Your task to perform on an android device: Search for razer blade on target, select the first entry, and add it to the cart. Image 0: 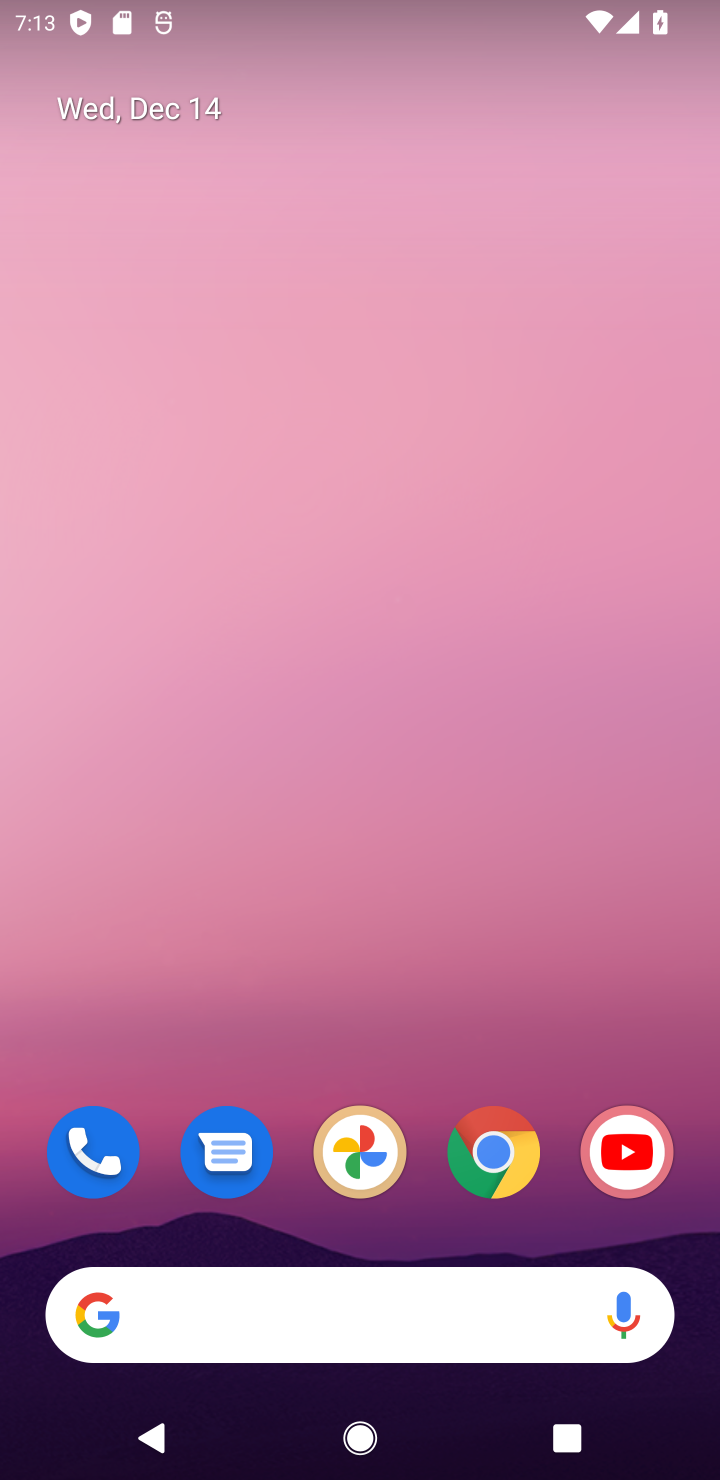
Step 0: click (504, 1158)
Your task to perform on an android device: Search for razer blade on target, select the first entry, and add it to the cart. Image 1: 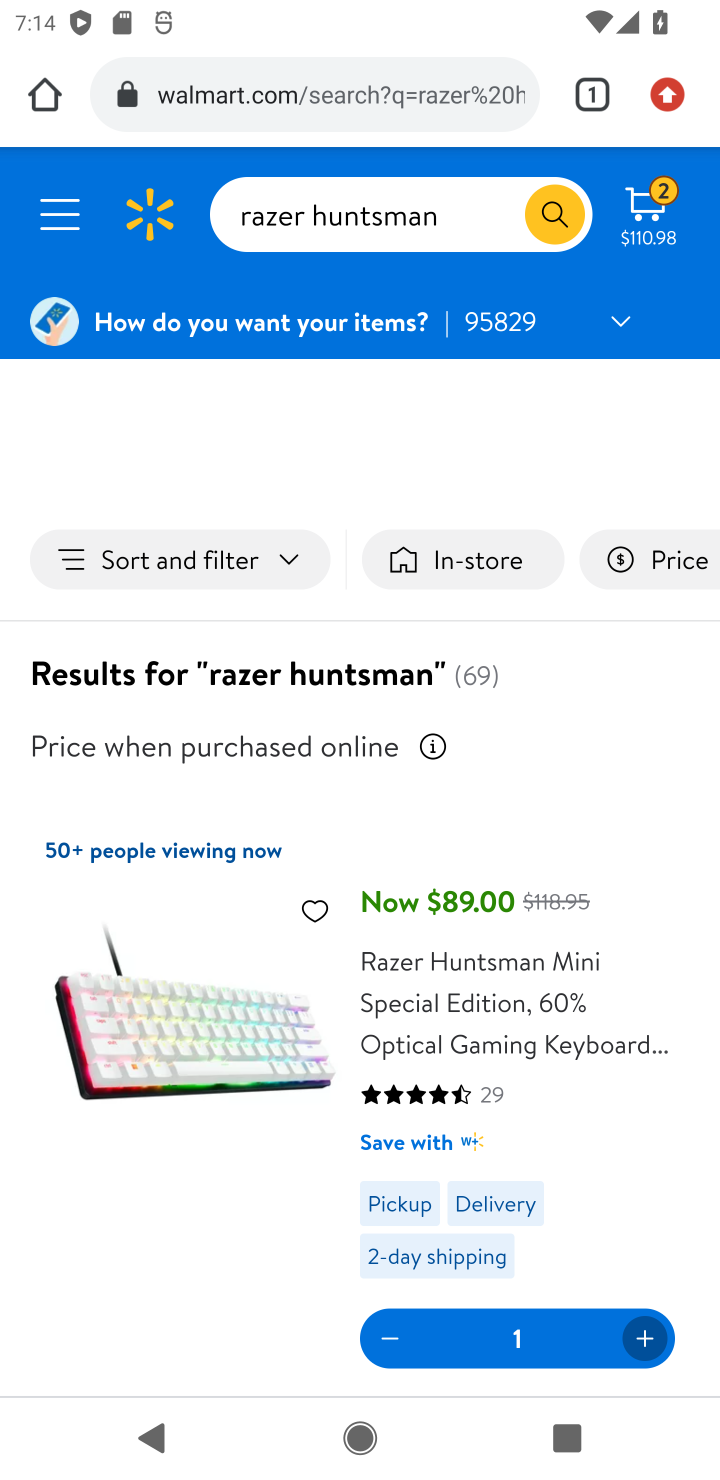
Step 1: click (269, 89)
Your task to perform on an android device: Search for razer blade on target, select the first entry, and add it to the cart. Image 2: 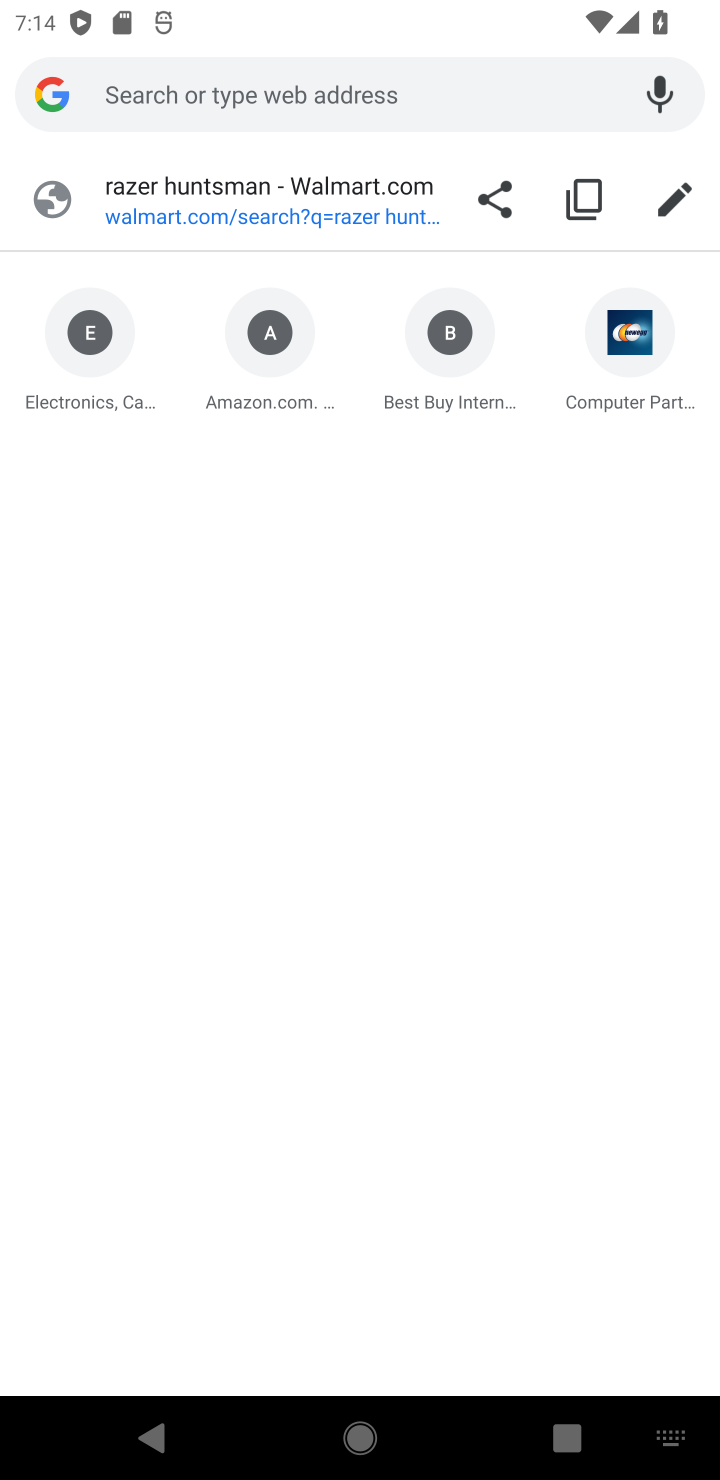
Step 2: type "target.com"
Your task to perform on an android device: Search for razer blade on target, select the first entry, and add it to the cart. Image 3: 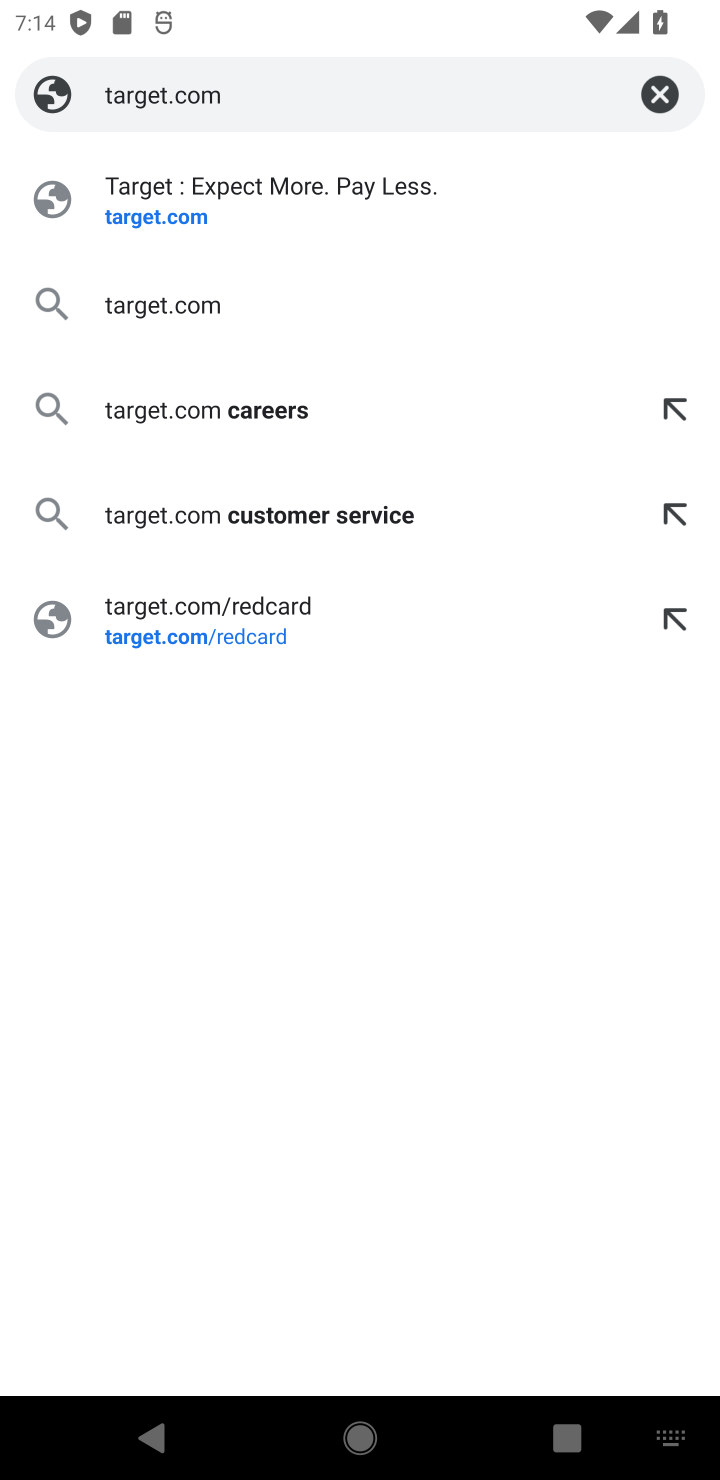
Step 3: click (158, 227)
Your task to perform on an android device: Search for razer blade on target, select the first entry, and add it to the cart. Image 4: 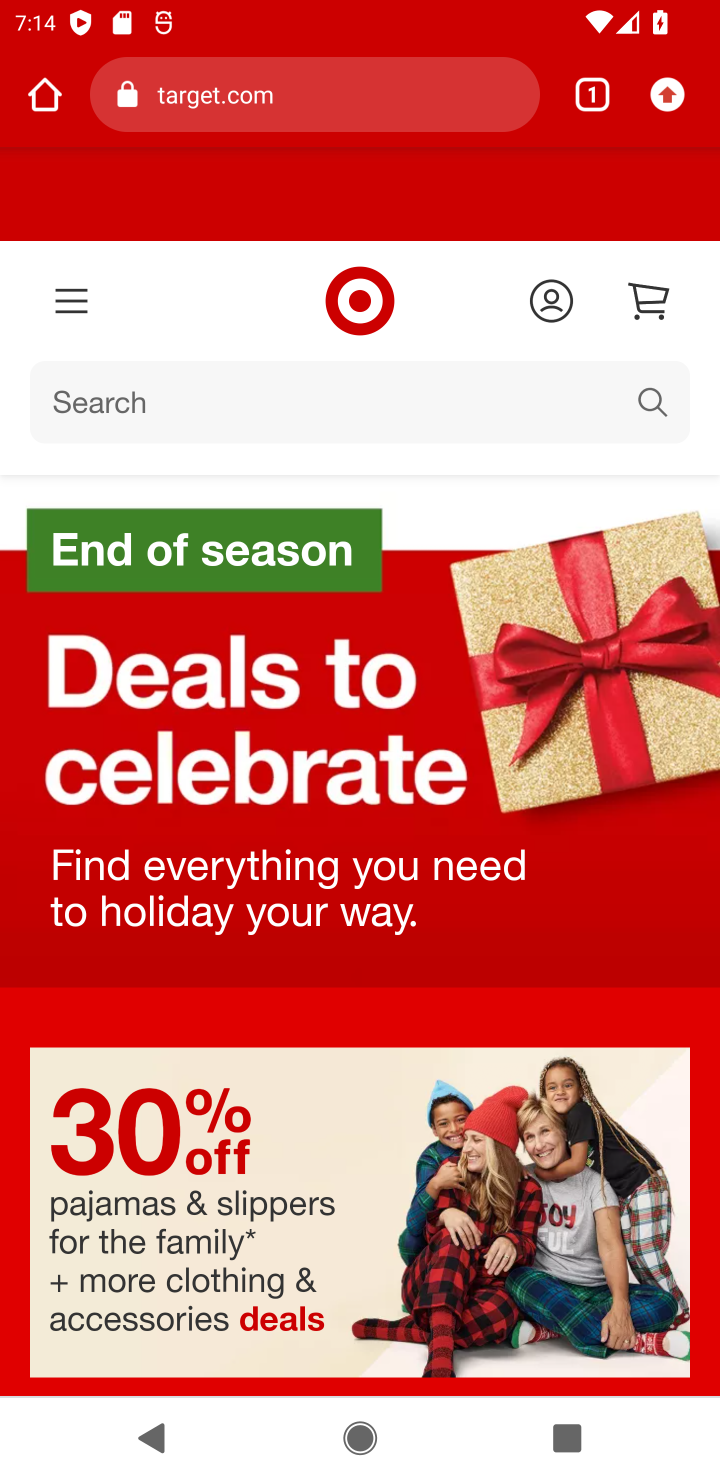
Step 4: click (79, 402)
Your task to perform on an android device: Search for razer blade on target, select the first entry, and add it to the cart. Image 5: 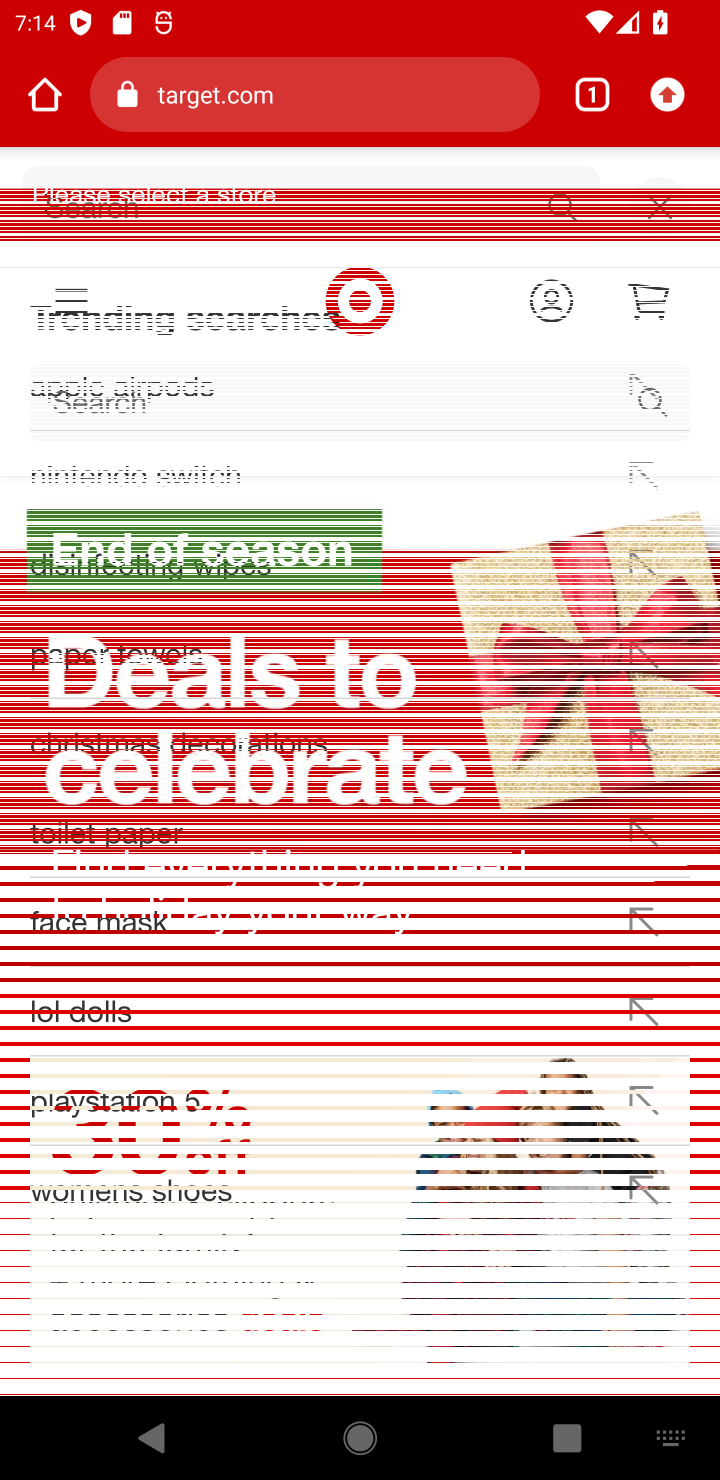
Step 5: type "razer blade"
Your task to perform on an android device: Search for razer blade on target, select the first entry, and add it to the cart. Image 6: 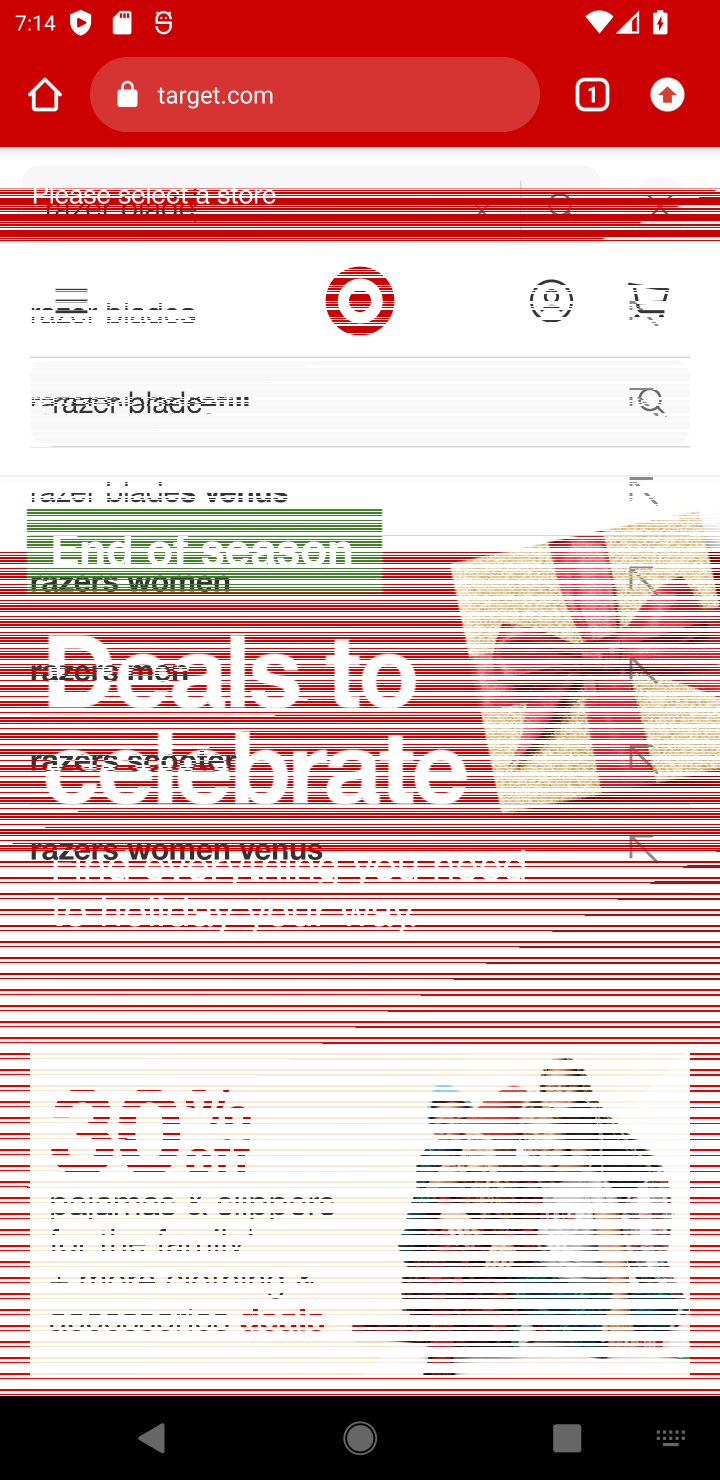
Step 6: click (564, 206)
Your task to perform on an android device: Search for razer blade on target, select the first entry, and add it to the cart. Image 7: 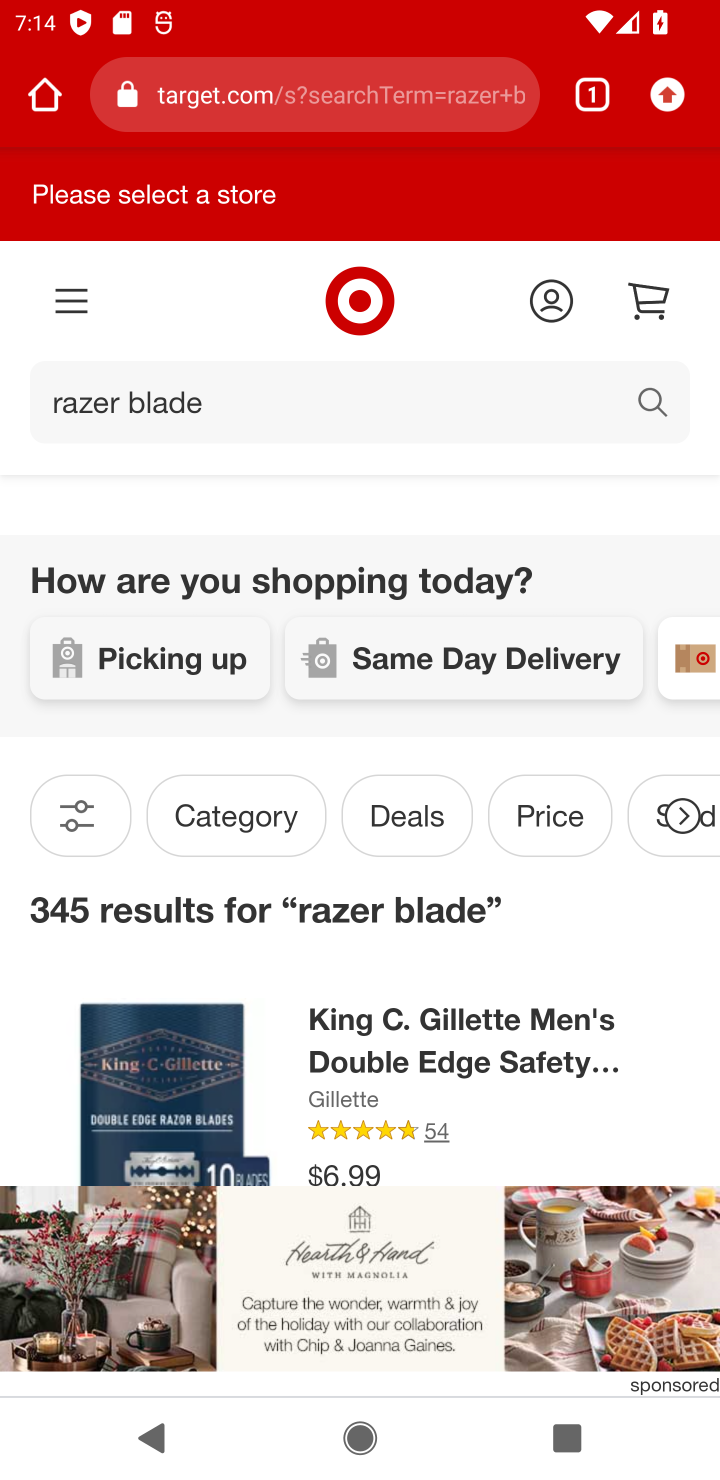
Step 7: task complete